Your task to perform on an android device: Open Android settings Image 0: 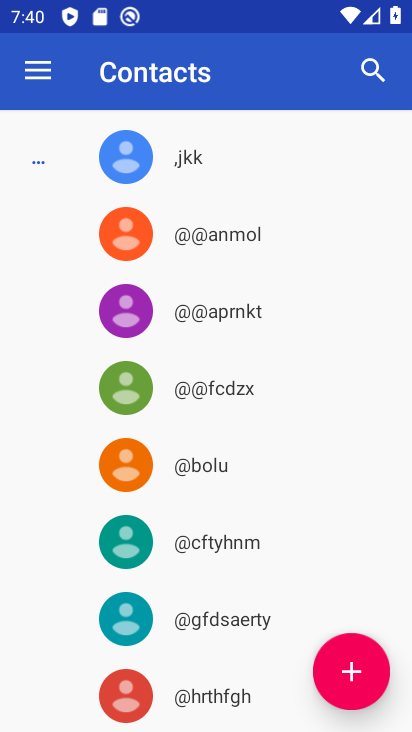
Step 0: press home button
Your task to perform on an android device: Open Android settings Image 1: 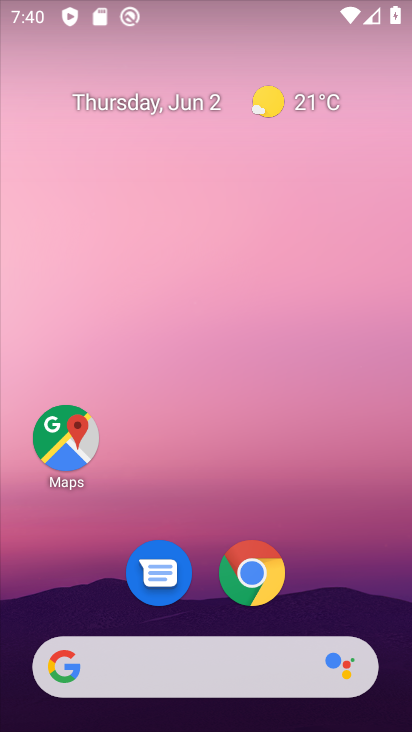
Step 1: drag from (350, 550) to (331, 41)
Your task to perform on an android device: Open Android settings Image 2: 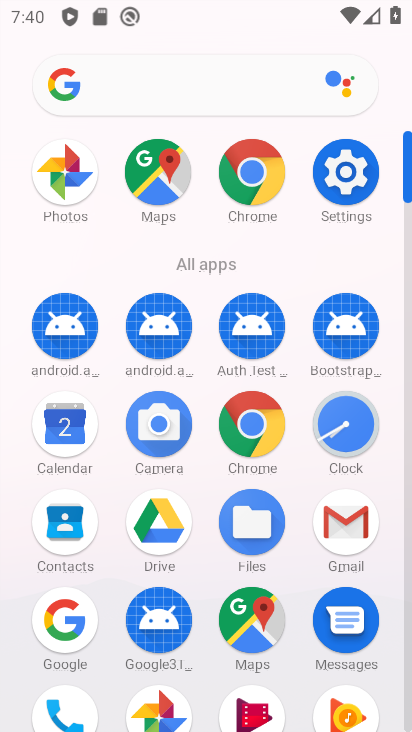
Step 2: click (345, 169)
Your task to perform on an android device: Open Android settings Image 3: 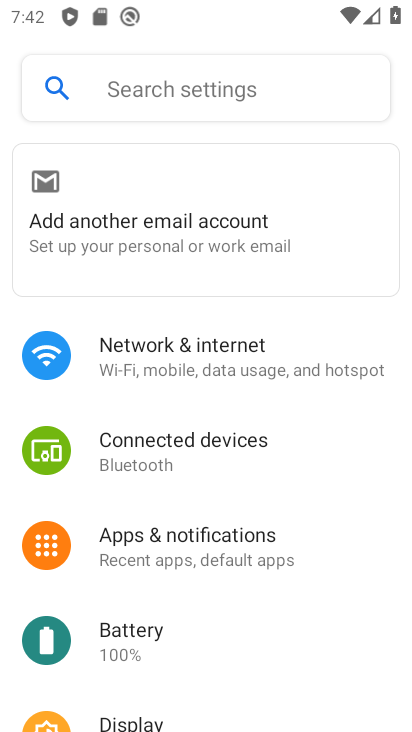
Step 3: task complete